Your task to perform on an android device: set the stopwatch Image 0: 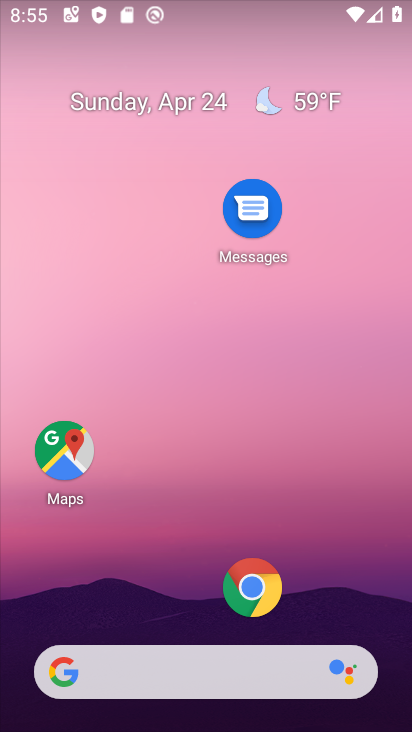
Step 0: drag from (165, 536) to (280, 9)
Your task to perform on an android device: set the stopwatch Image 1: 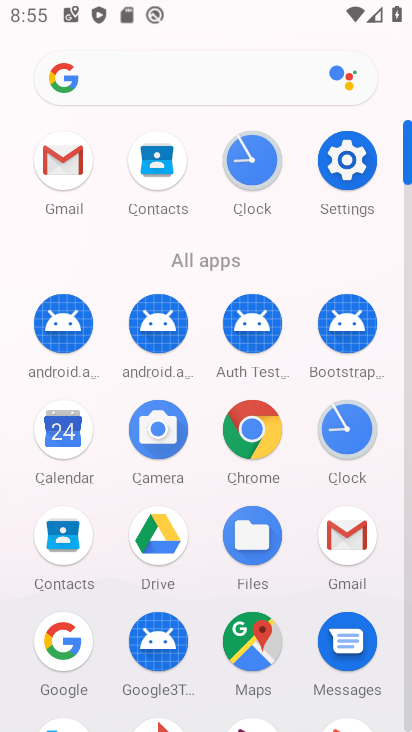
Step 1: click (350, 429)
Your task to perform on an android device: set the stopwatch Image 2: 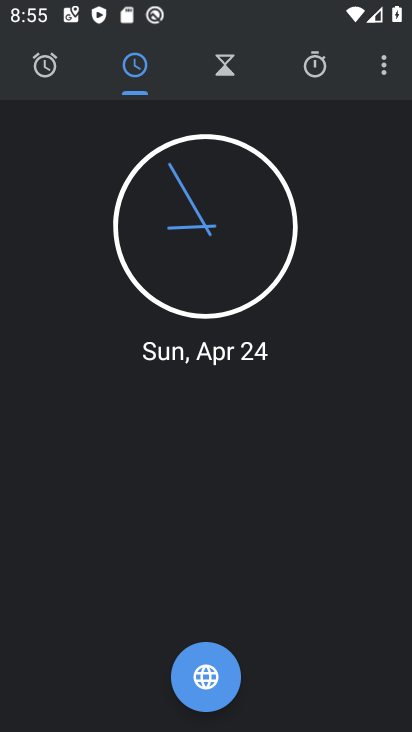
Step 2: click (325, 59)
Your task to perform on an android device: set the stopwatch Image 3: 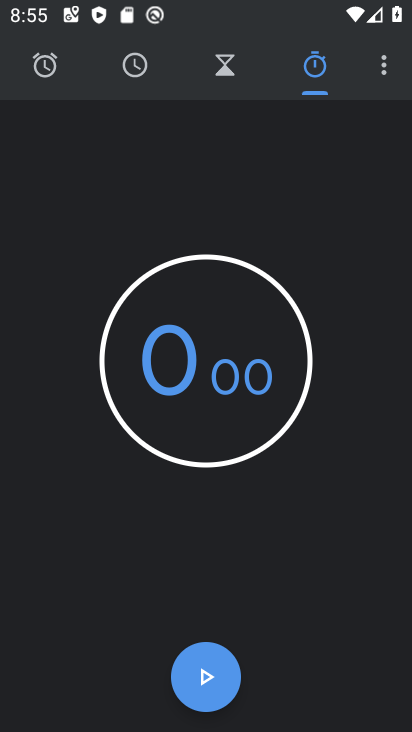
Step 3: click (209, 679)
Your task to perform on an android device: set the stopwatch Image 4: 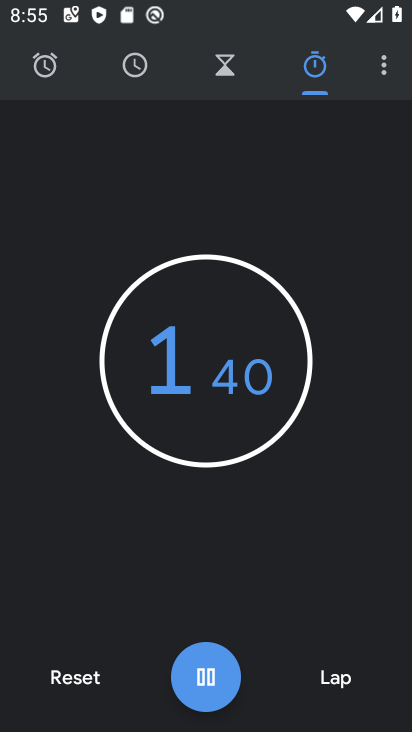
Step 4: task complete